Your task to perform on an android device: View the shopping cart on target. Search for "alienware area 51" on target, select the first entry, and add it to the cart. Image 0: 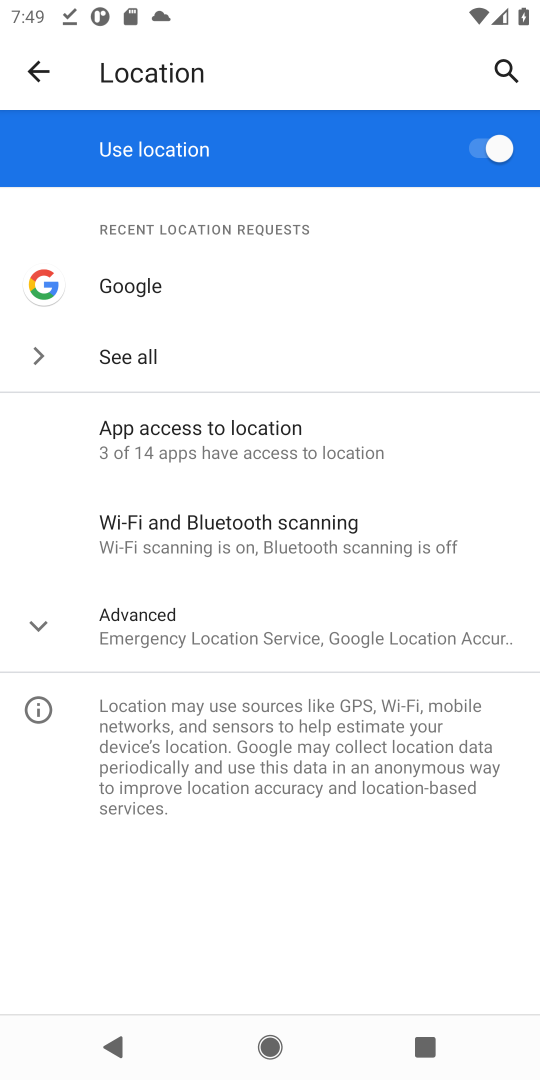
Step 0: press home button
Your task to perform on an android device: View the shopping cart on target. Search for "alienware area 51" on target, select the first entry, and add it to the cart. Image 1: 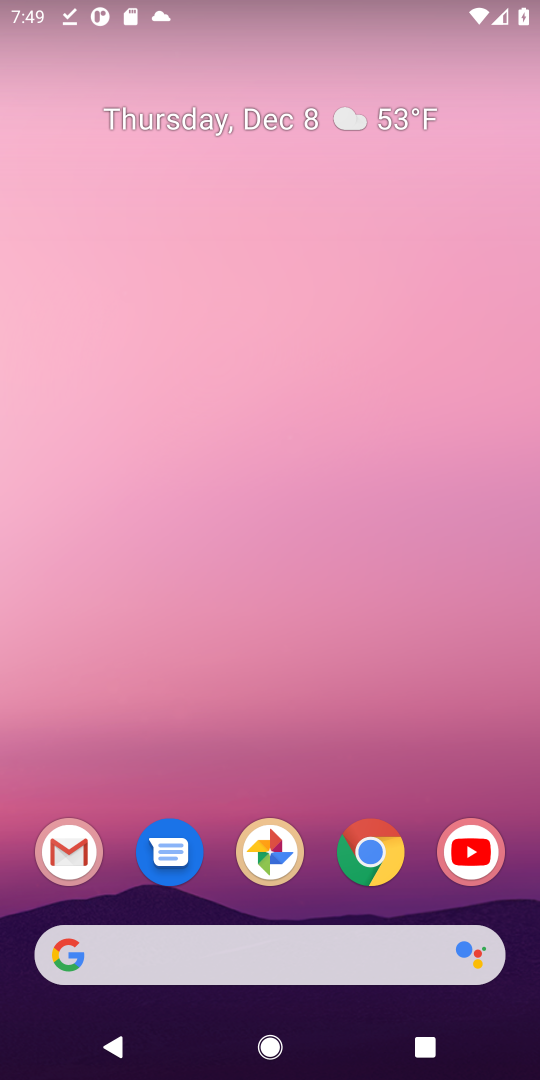
Step 1: click (282, 972)
Your task to perform on an android device: View the shopping cart on target. Search for "alienware area 51" on target, select the first entry, and add it to the cart. Image 2: 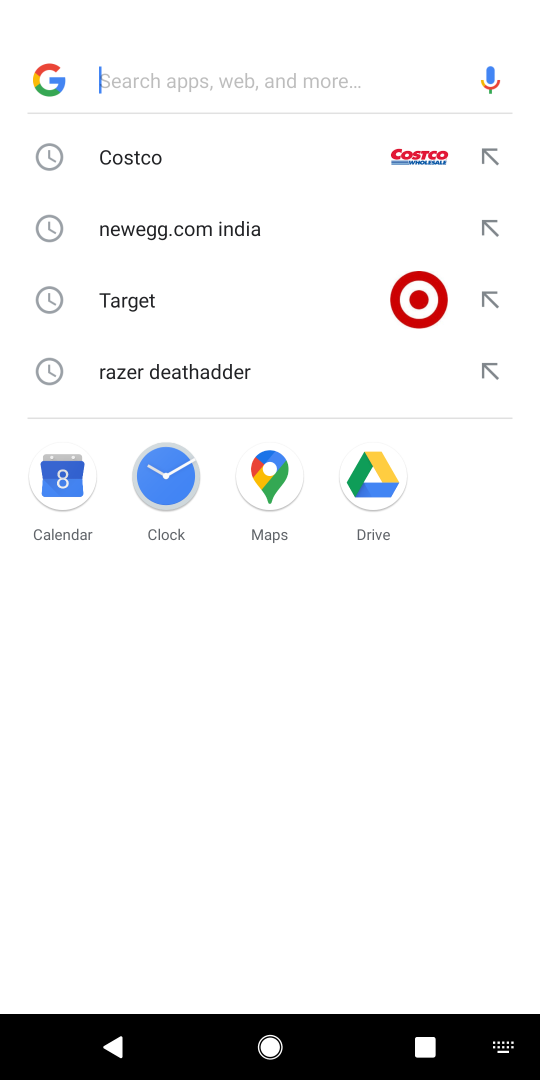
Step 2: type "alienware area 51"
Your task to perform on an android device: View the shopping cart on target. Search for "alienware area 51" on target, select the first entry, and add it to the cart. Image 3: 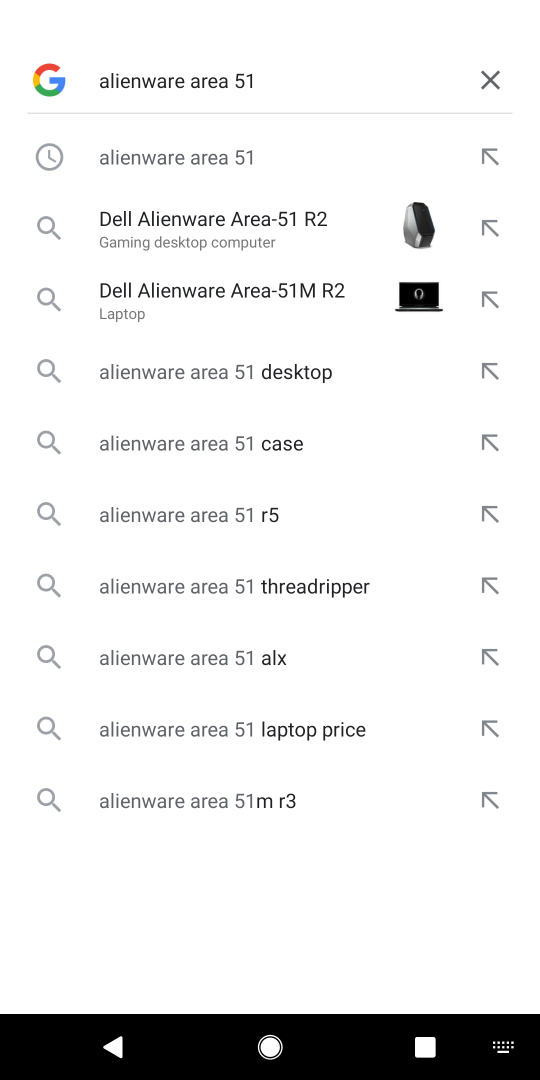
Step 3: click (170, 169)
Your task to perform on an android device: View the shopping cart on target. Search for "alienware area 51" on target, select the first entry, and add it to the cart. Image 4: 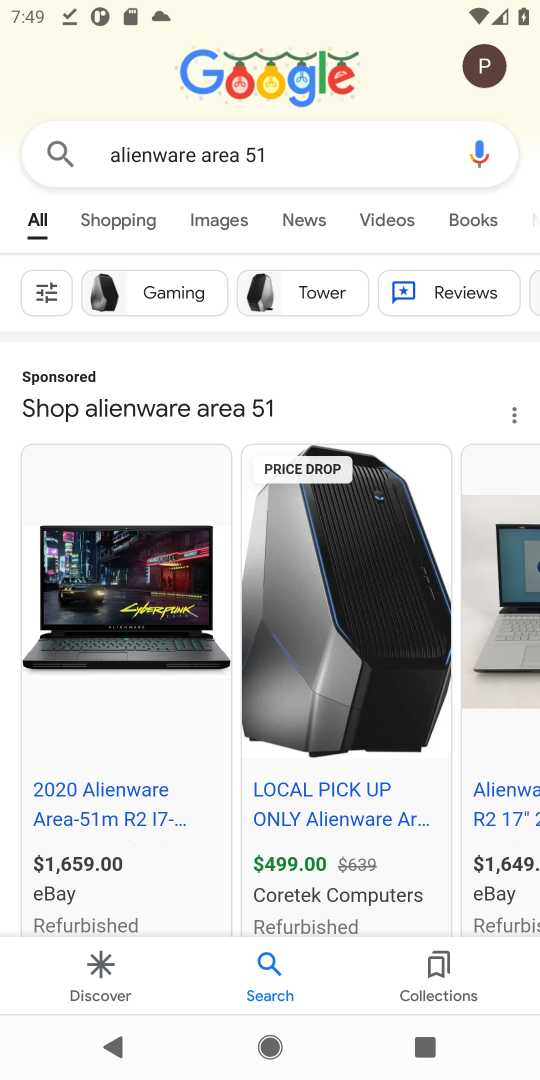
Step 4: task complete